Your task to perform on an android device: set the stopwatch Image 0: 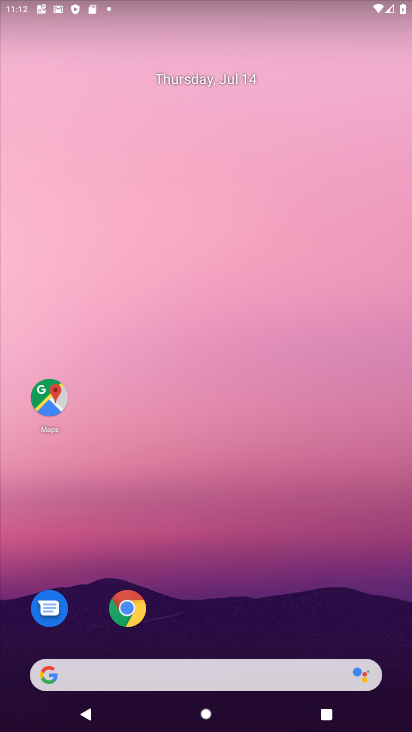
Step 0: drag from (383, 457) to (387, 53)
Your task to perform on an android device: set the stopwatch Image 1: 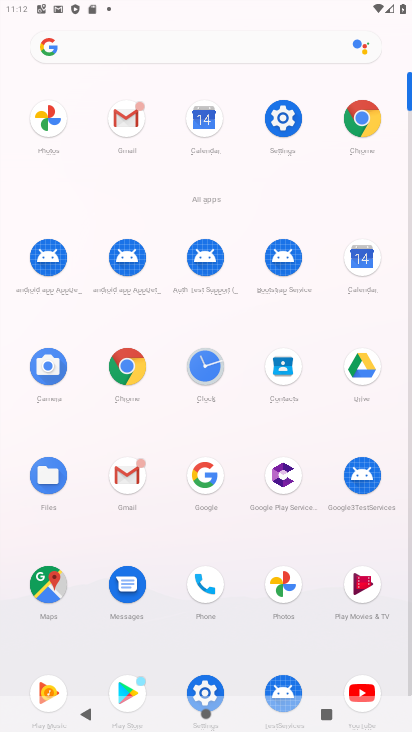
Step 1: click (205, 376)
Your task to perform on an android device: set the stopwatch Image 2: 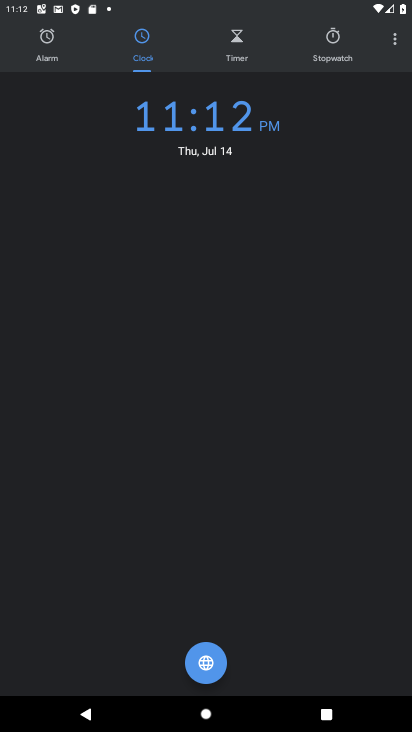
Step 2: click (347, 41)
Your task to perform on an android device: set the stopwatch Image 3: 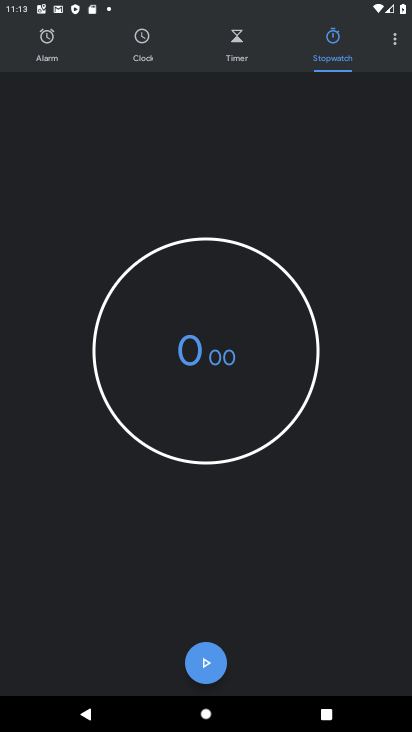
Step 3: click (210, 665)
Your task to perform on an android device: set the stopwatch Image 4: 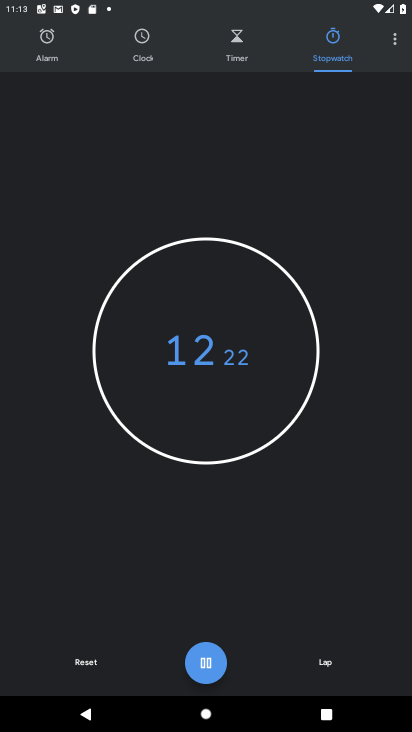
Step 4: task complete